Your task to perform on an android device: turn on priority inbox in the gmail app Image 0: 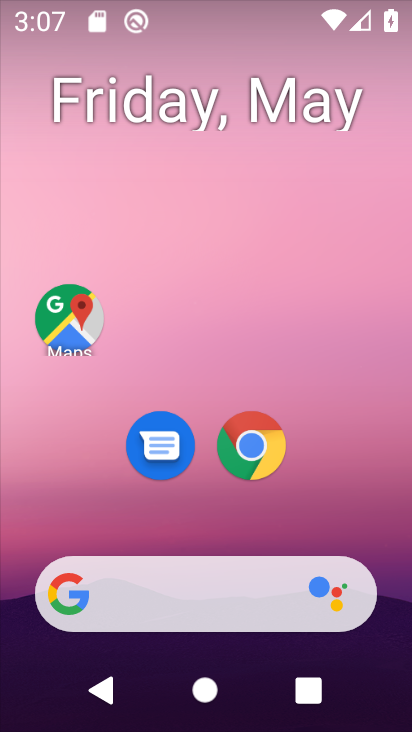
Step 0: drag from (216, 547) to (247, 259)
Your task to perform on an android device: turn on priority inbox in the gmail app Image 1: 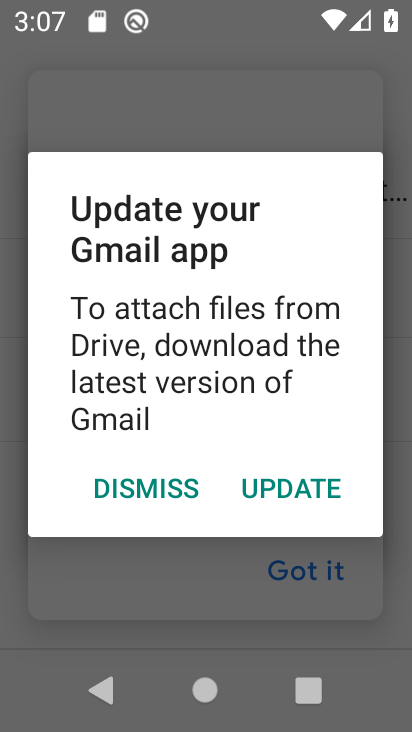
Step 1: click (151, 495)
Your task to perform on an android device: turn on priority inbox in the gmail app Image 2: 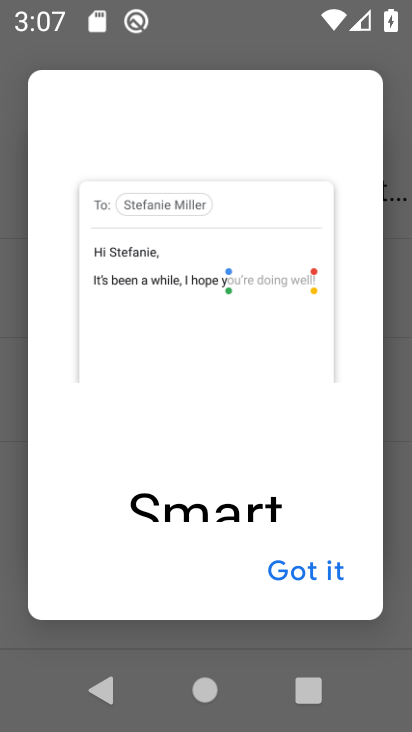
Step 2: press home button
Your task to perform on an android device: turn on priority inbox in the gmail app Image 3: 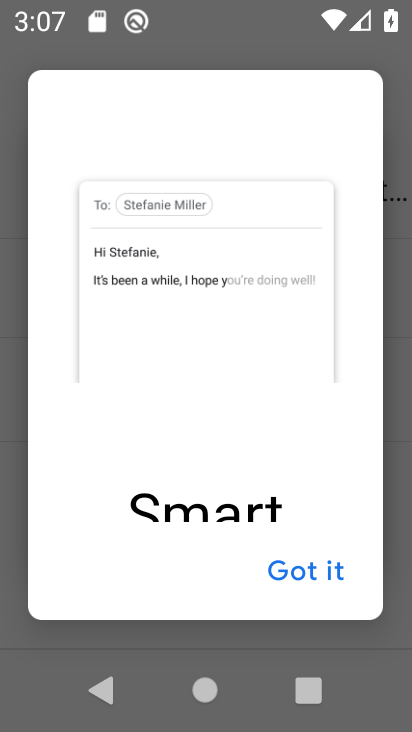
Step 3: press home button
Your task to perform on an android device: turn on priority inbox in the gmail app Image 4: 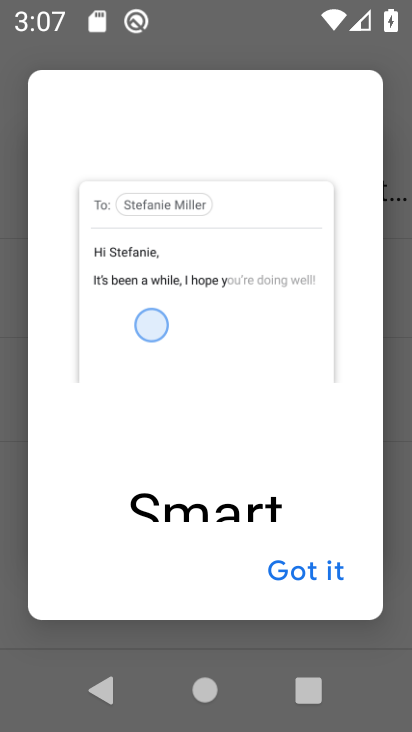
Step 4: drag from (220, 581) to (254, 301)
Your task to perform on an android device: turn on priority inbox in the gmail app Image 5: 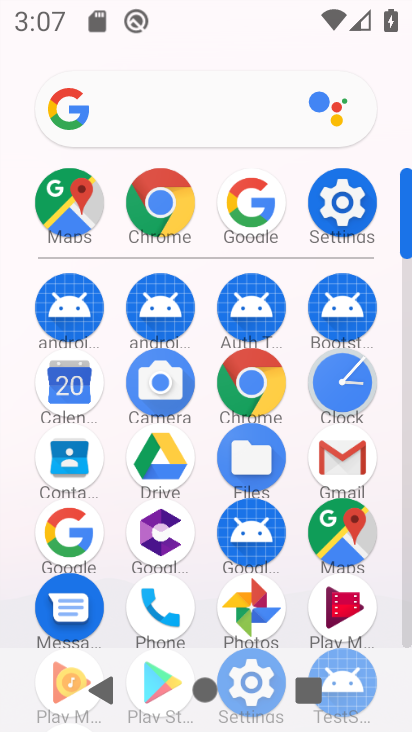
Step 5: click (340, 447)
Your task to perform on an android device: turn on priority inbox in the gmail app Image 6: 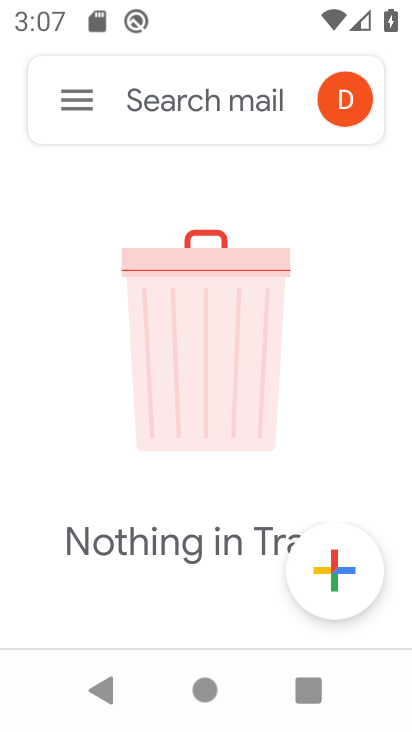
Step 6: click (80, 102)
Your task to perform on an android device: turn on priority inbox in the gmail app Image 7: 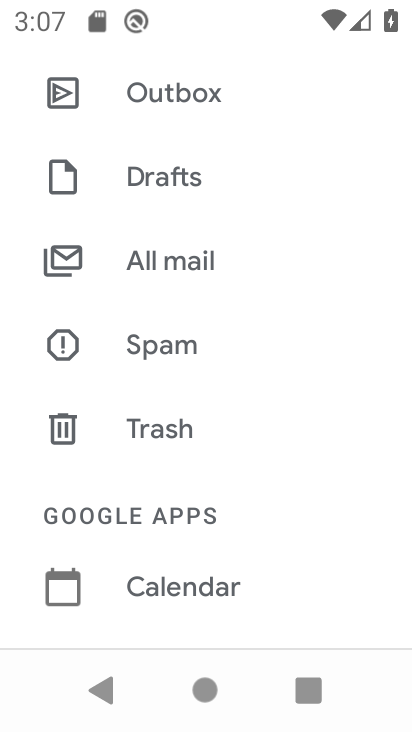
Step 7: drag from (223, 447) to (244, 344)
Your task to perform on an android device: turn on priority inbox in the gmail app Image 8: 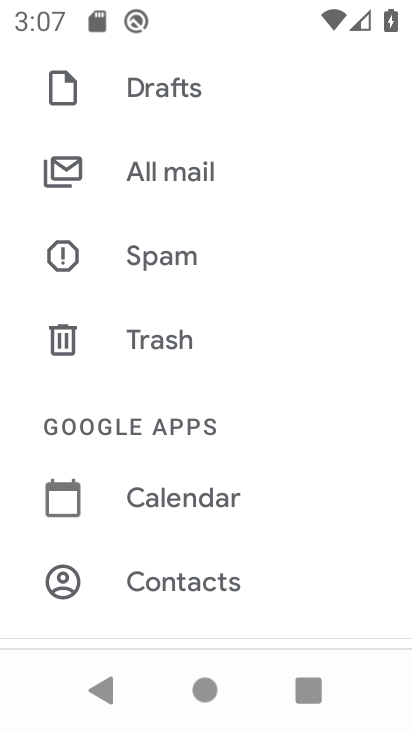
Step 8: drag from (218, 200) to (243, 727)
Your task to perform on an android device: turn on priority inbox in the gmail app Image 9: 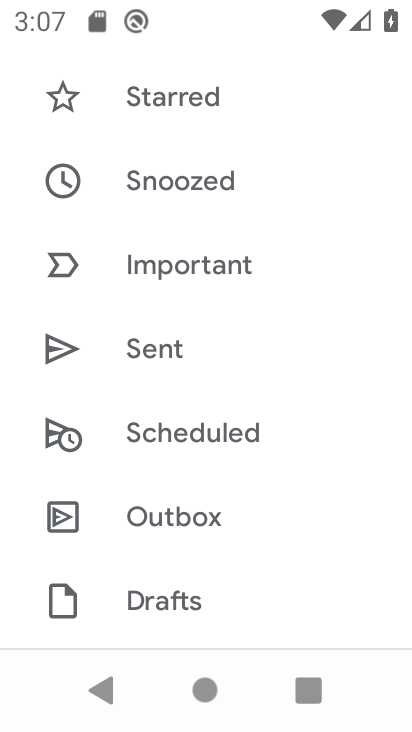
Step 9: drag from (215, 568) to (345, 239)
Your task to perform on an android device: turn on priority inbox in the gmail app Image 10: 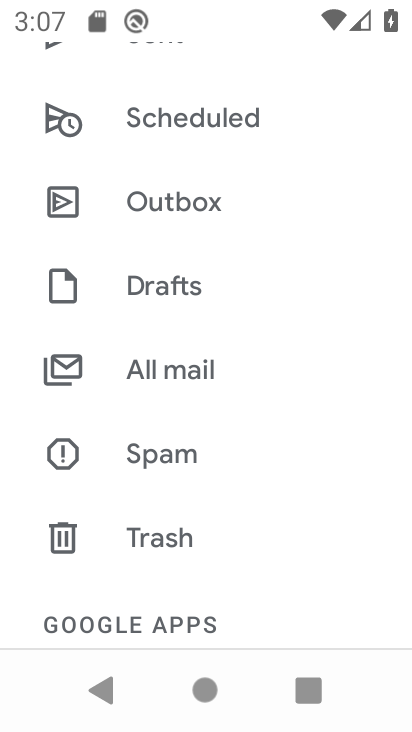
Step 10: drag from (216, 529) to (283, 264)
Your task to perform on an android device: turn on priority inbox in the gmail app Image 11: 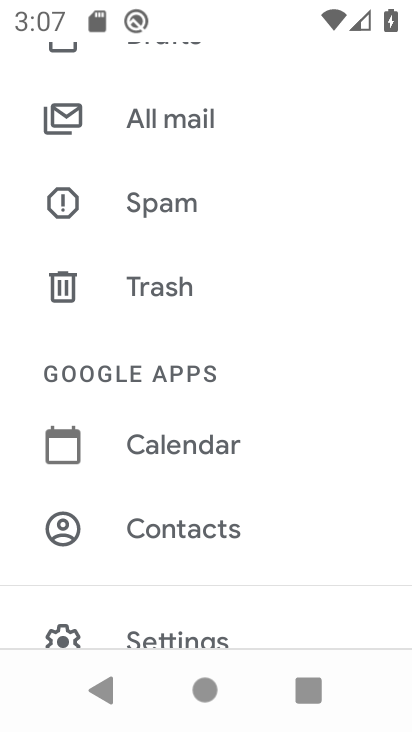
Step 11: drag from (190, 518) to (225, 236)
Your task to perform on an android device: turn on priority inbox in the gmail app Image 12: 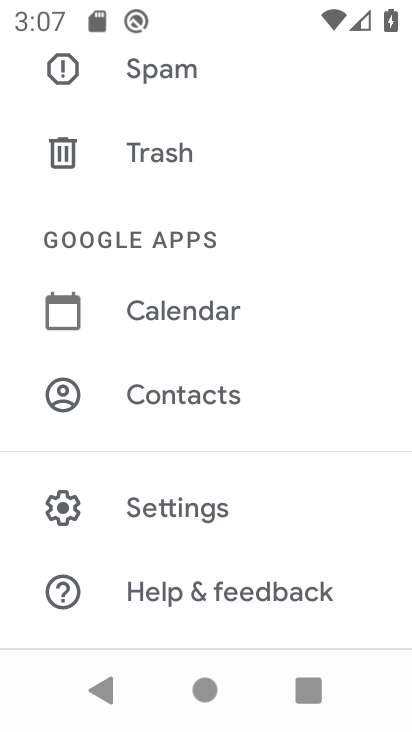
Step 12: click (128, 520)
Your task to perform on an android device: turn on priority inbox in the gmail app Image 13: 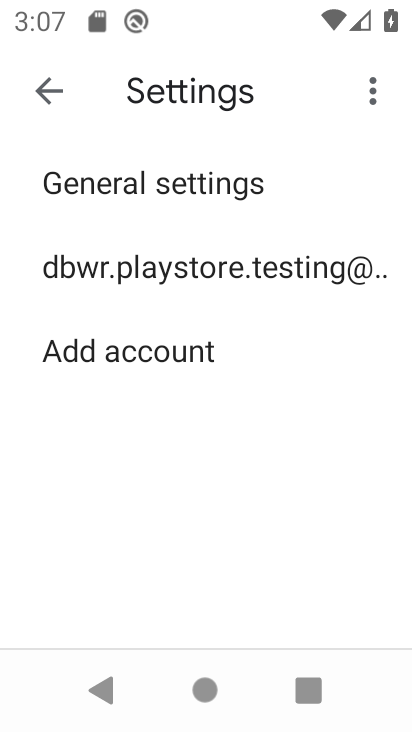
Step 13: click (216, 213)
Your task to perform on an android device: turn on priority inbox in the gmail app Image 14: 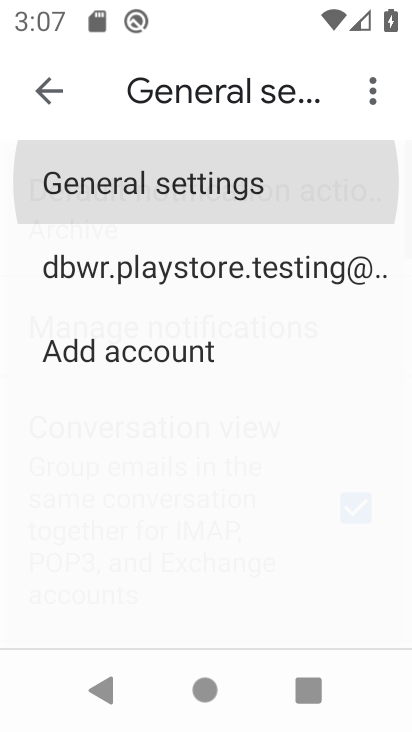
Step 14: click (213, 249)
Your task to perform on an android device: turn on priority inbox in the gmail app Image 15: 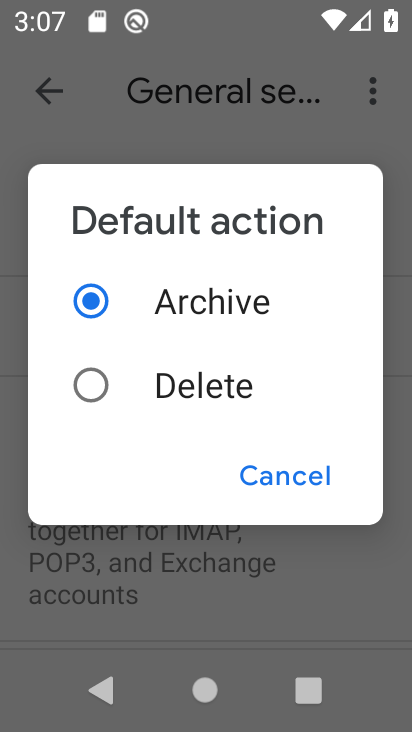
Step 15: press back button
Your task to perform on an android device: turn on priority inbox in the gmail app Image 16: 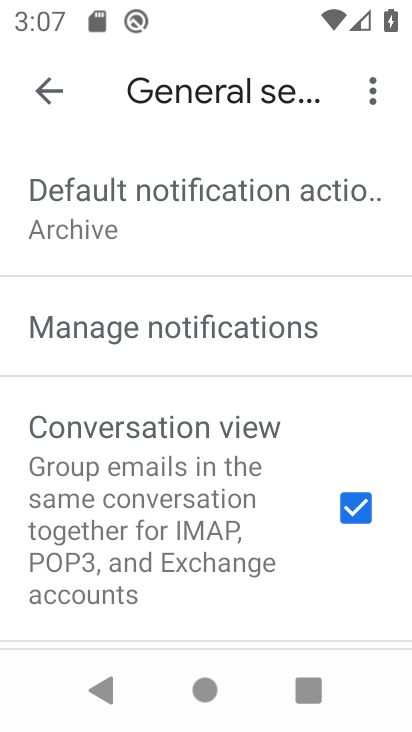
Step 16: click (63, 97)
Your task to perform on an android device: turn on priority inbox in the gmail app Image 17: 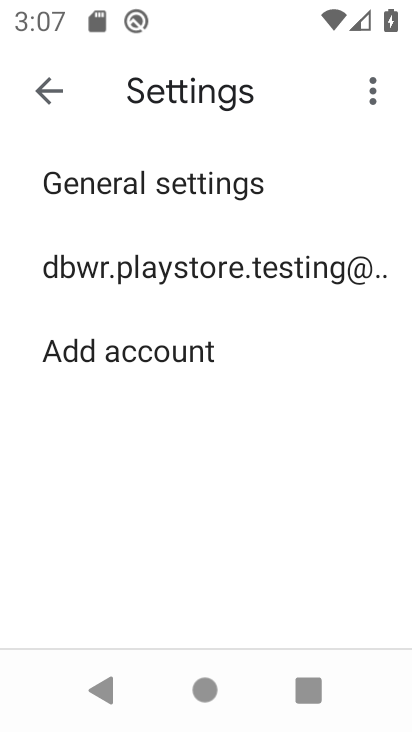
Step 17: click (233, 270)
Your task to perform on an android device: turn on priority inbox in the gmail app Image 18: 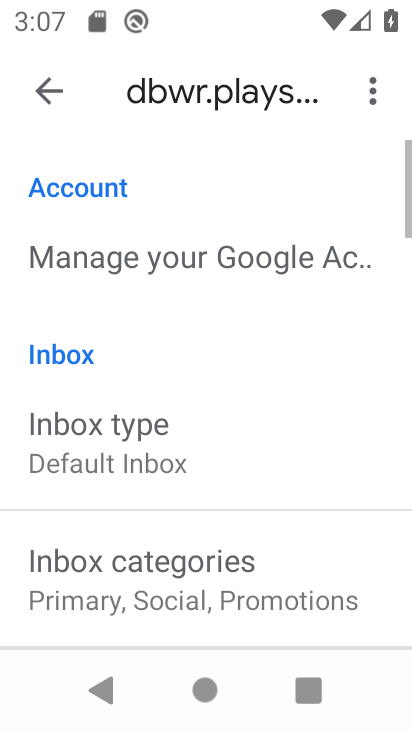
Step 18: click (103, 455)
Your task to perform on an android device: turn on priority inbox in the gmail app Image 19: 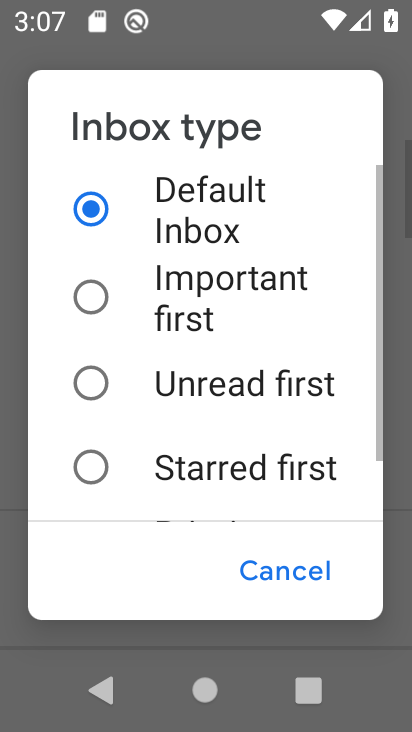
Step 19: drag from (158, 475) to (264, 57)
Your task to perform on an android device: turn on priority inbox in the gmail app Image 20: 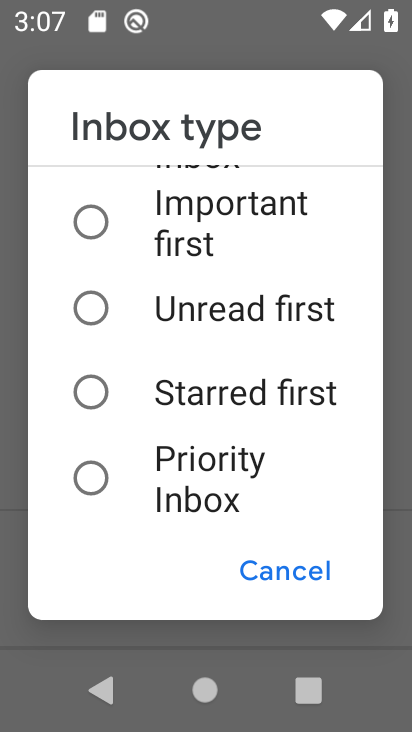
Step 20: click (83, 493)
Your task to perform on an android device: turn on priority inbox in the gmail app Image 21: 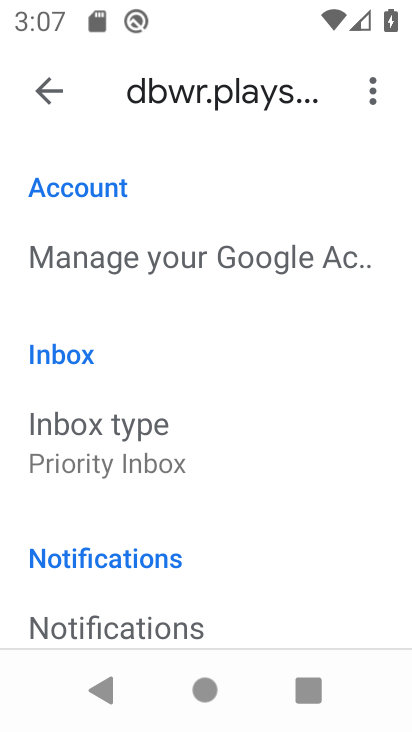
Step 21: task complete